Your task to perform on an android device: turn off notifications in google photos Image 0: 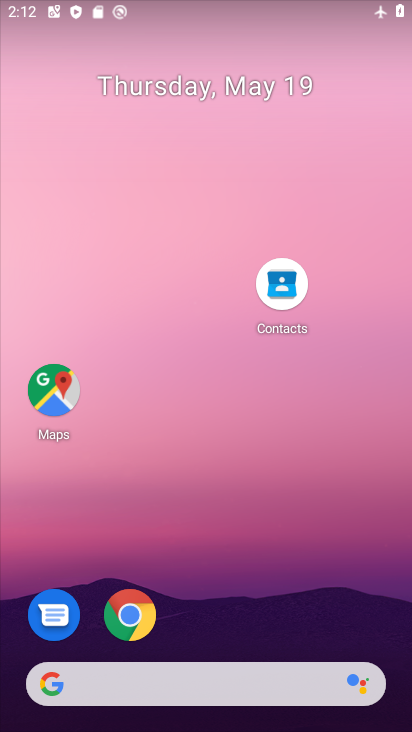
Step 0: drag from (253, 550) to (299, 14)
Your task to perform on an android device: turn off notifications in google photos Image 1: 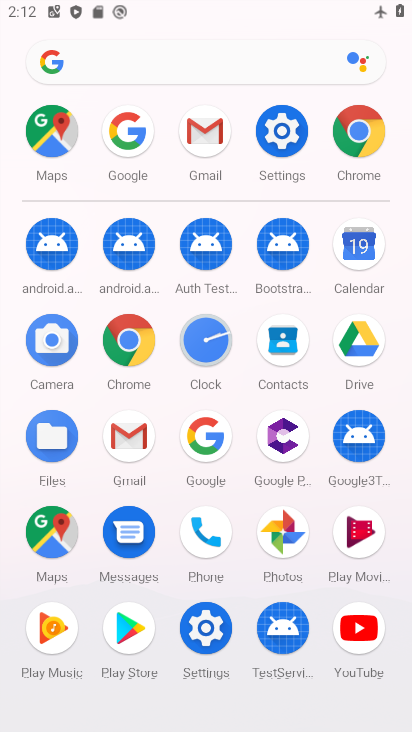
Step 1: click (275, 550)
Your task to perform on an android device: turn off notifications in google photos Image 2: 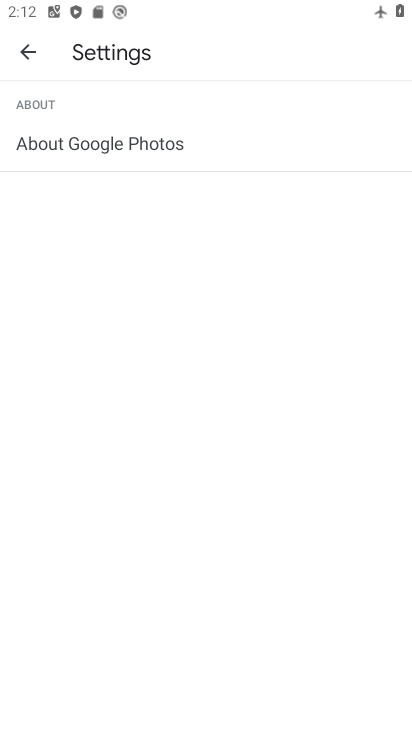
Step 2: click (33, 49)
Your task to perform on an android device: turn off notifications in google photos Image 3: 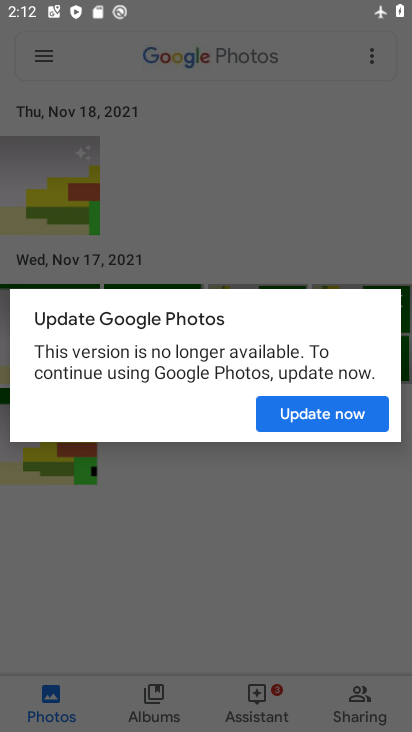
Step 3: click (331, 416)
Your task to perform on an android device: turn off notifications in google photos Image 4: 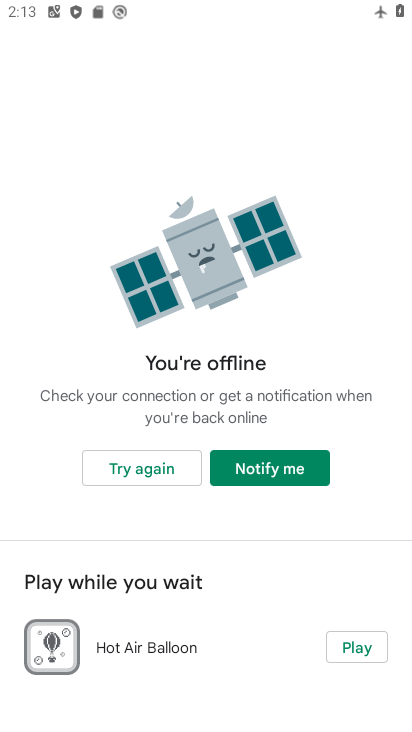
Step 4: task complete